Your task to perform on an android device: toggle show notifications on the lock screen Image 0: 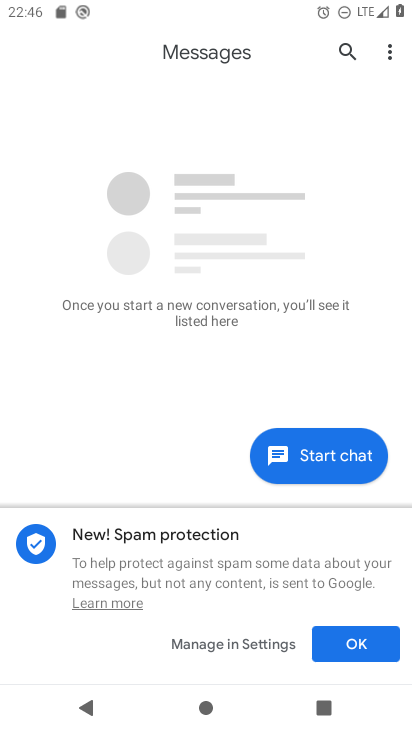
Step 0: click (185, 532)
Your task to perform on an android device: toggle show notifications on the lock screen Image 1: 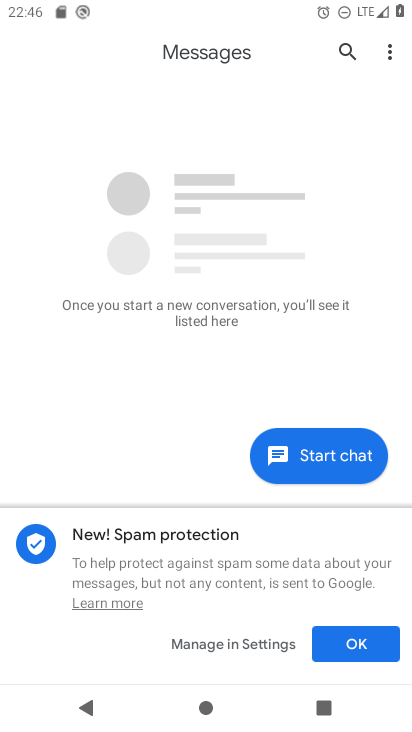
Step 1: press home button
Your task to perform on an android device: toggle show notifications on the lock screen Image 2: 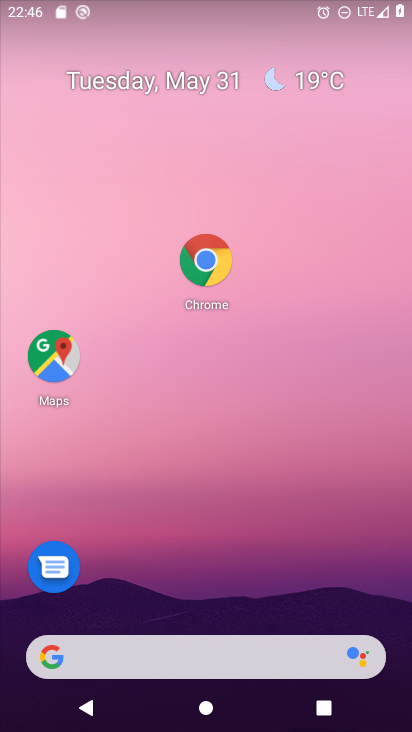
Step 2: drag from (183, 563) to (216, 402)
Your task to perform on an android device: toggle show notifications on the lock screen Image 3: 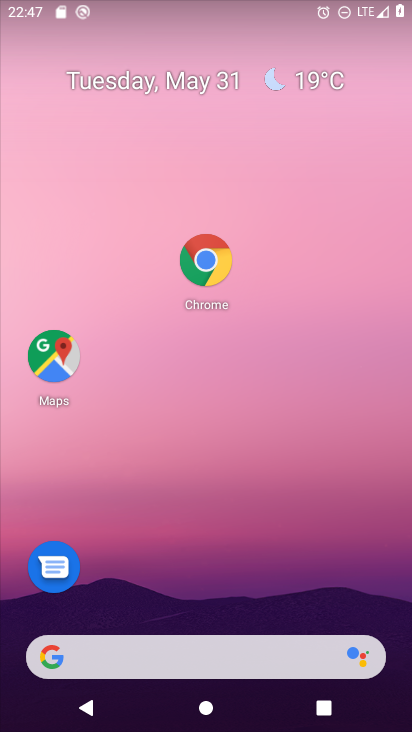
Step 3: drag from (224, 488) to (240, 278)
Your task to perform on an android device: toggle show notifications on the lock screen Image 4: 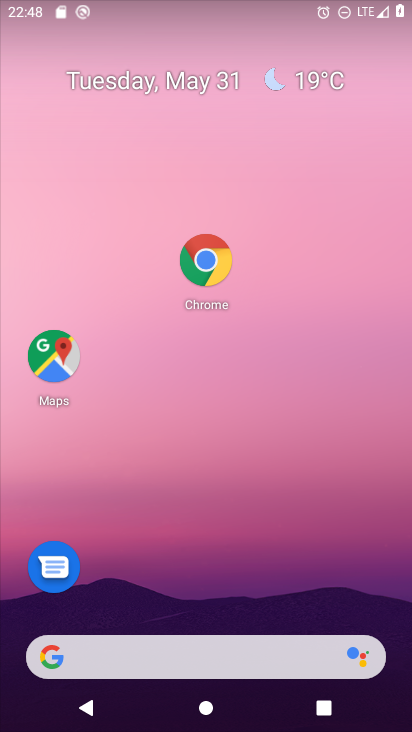
Step 4: drag from (180, 554) to (241, 384)
Your task to perform on an android device: toggle show notifications on the lock screen Image 5: 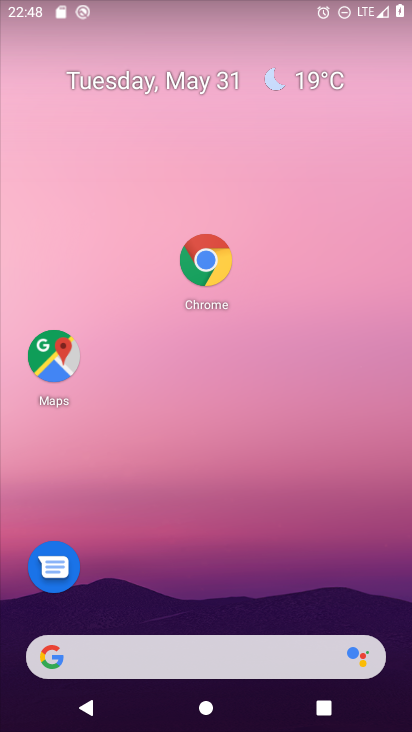
Step 5: drag from (216, 582) to (263, 211)
Your task to perform on an android device: toggle show notifications on the lock screen Image 6: 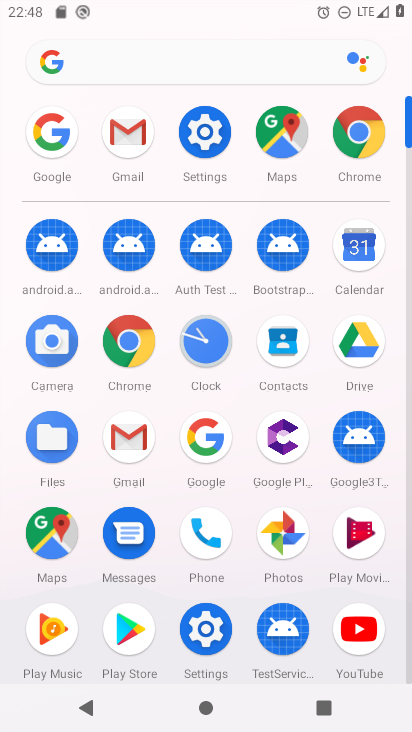
Step 6: click (224, 133)
Your task to perform on an android device: toggle show notifications on the lock screen Image 7: 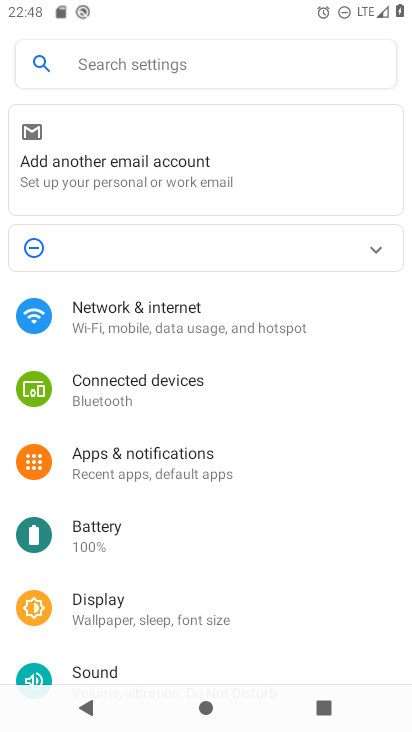
Step 7: drag from (114, 644) to (187, 326)
Your task to perform on an android device: toggle show notifications on the lock screen Image 8: 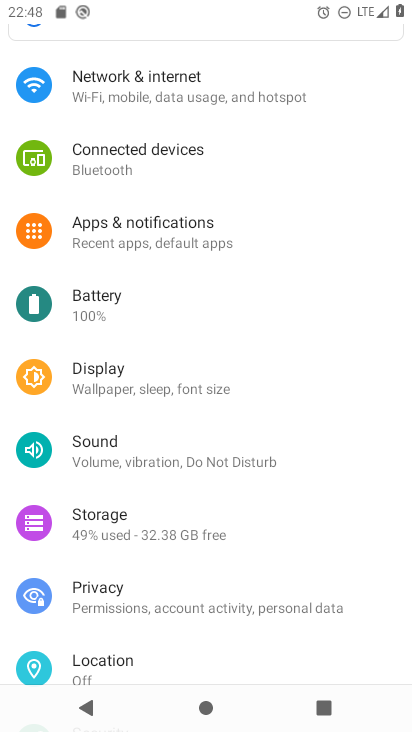
Step 8: click (166, 603)
Your task to perform on an android device: toggle show notifications on the lock screen Image 9: 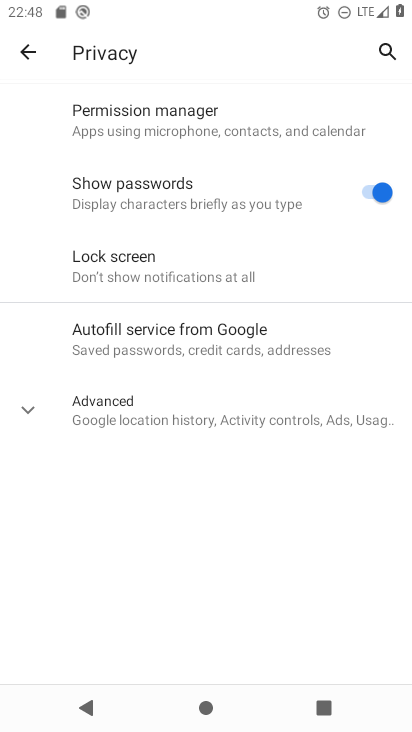
Step 9: click (111, 253)
Your task to perform on an android device: toggle show notifications on the lock screen Image 10: 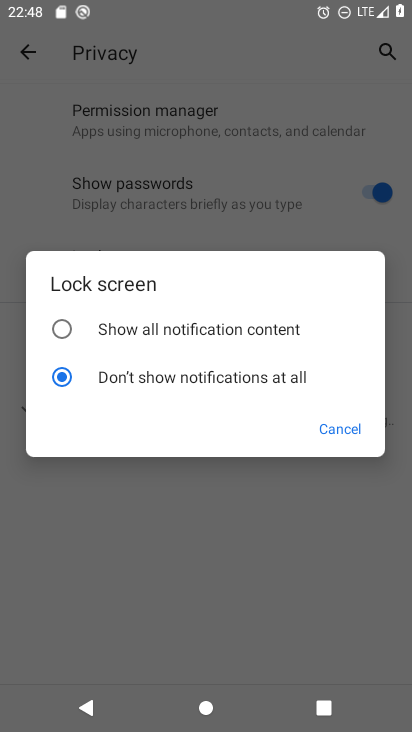
Step 10: click (157, 334)
Your task to perform on an android device: toggle show notifications on the lock screen Image 11: 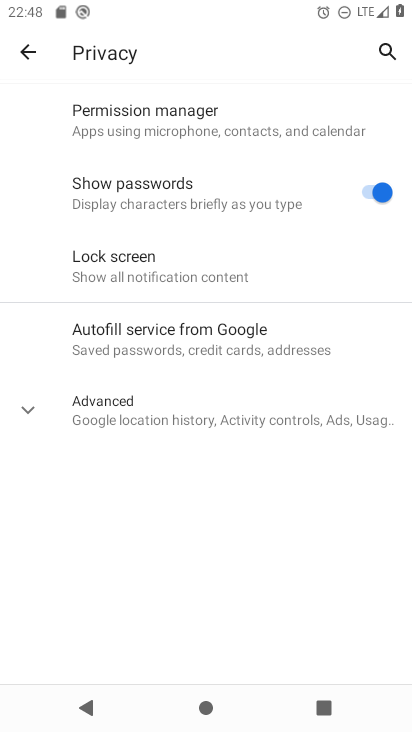
Step 11: task complete